Your task to perform on an android device: find photos in the google photos app Image 0: 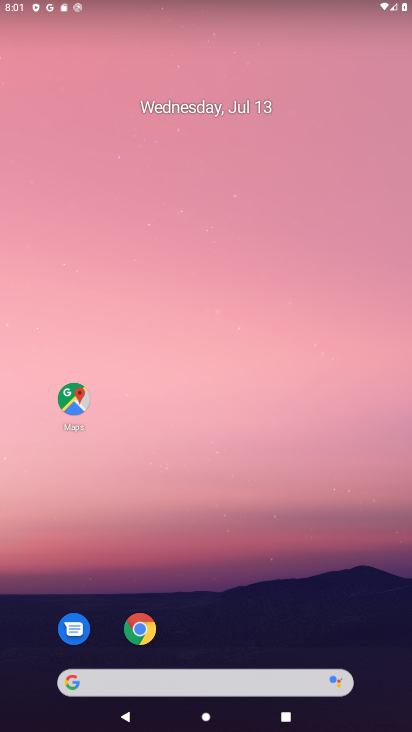
Step 0: drag from (231, 636) to (256, 208)
Your task to perform on an android device: find photos in the google photos app Image 1: 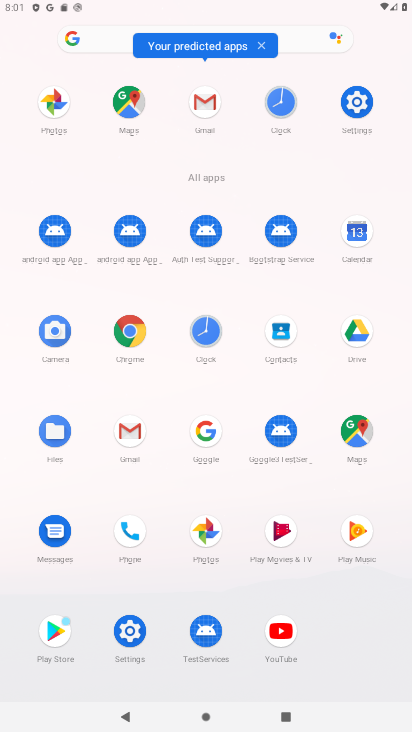
Step 1: click (210, 530)
Your task to perform on an android device: find photos in the google photos app Image 2: 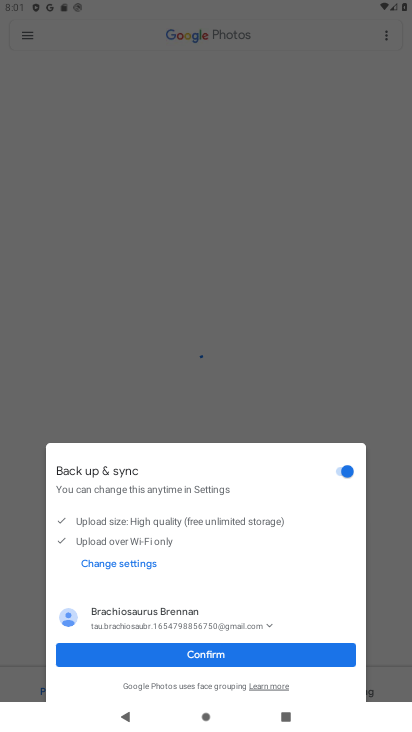
Step 2: click (198, 656)
Your task to perform on an android device: find photos in the google photos app Image 3: 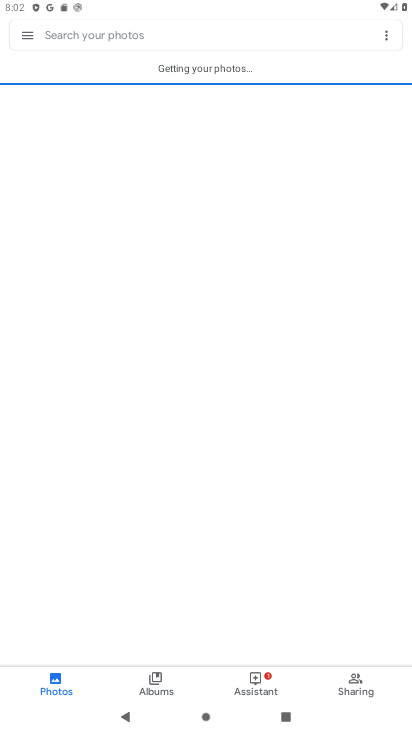
Step 3: task complete